Your task to perform on an android device: turn notification dots off Image 0: 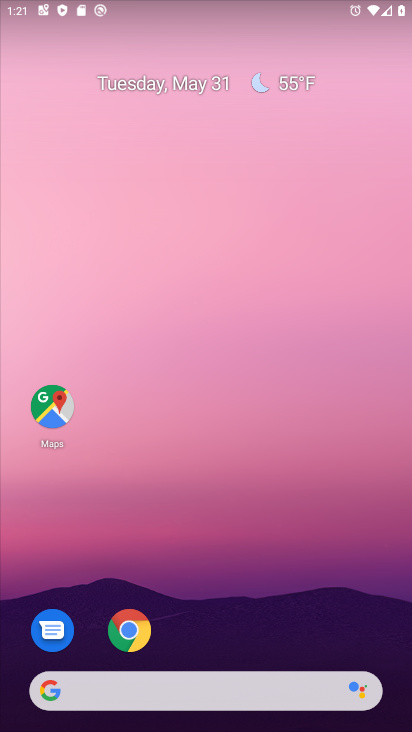
Step 0: drag from (159, 663) to (163, 312)
Your task to perform on an android device: turn notification dots off Image 1: 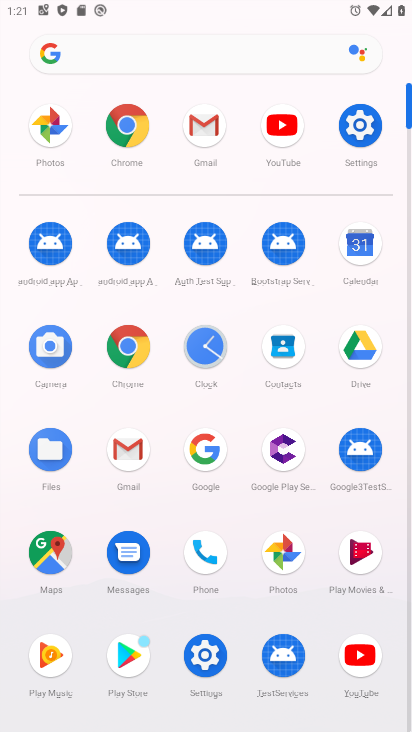
Step 1: click (361, 119)
Your task to perform on an android device: turn notification dots off Image 2: 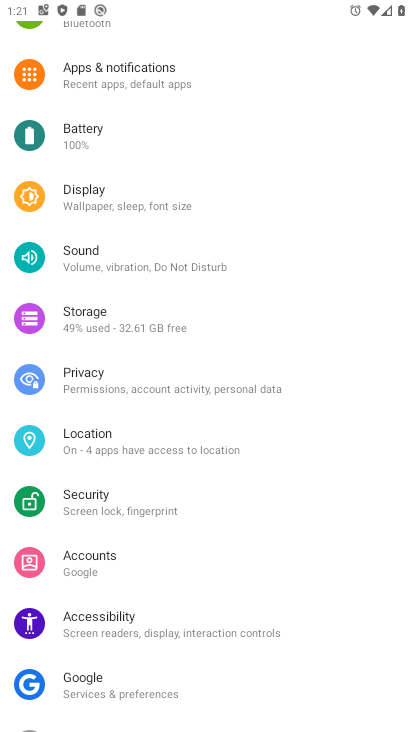
Step 2: click (128, 66)
Your task to perform on an android device: turn notification dots off Image 3: 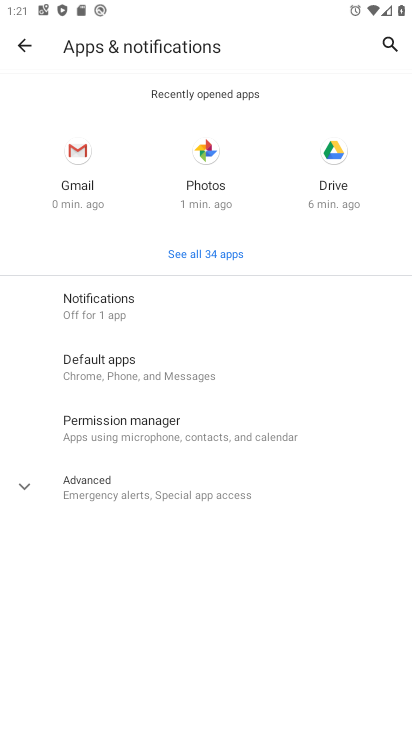
Step 3: click (101, 305)
Your task to perform on an android device: turn notification dots off Image 4: 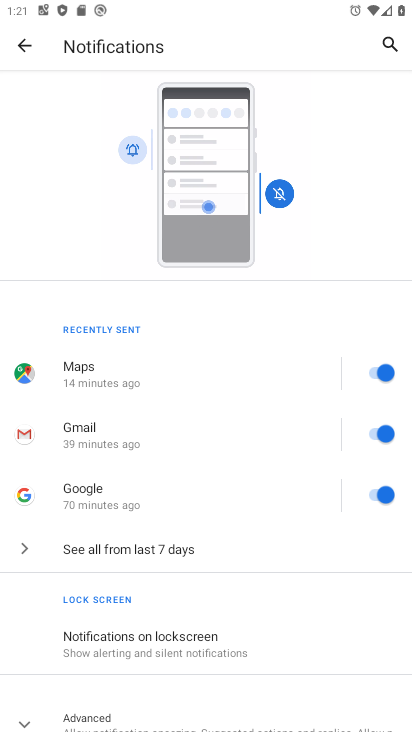
Step 4: drag from (111, 712) to (113, 419)
Your task to perform on an android device: turn notification dots off Image 5: 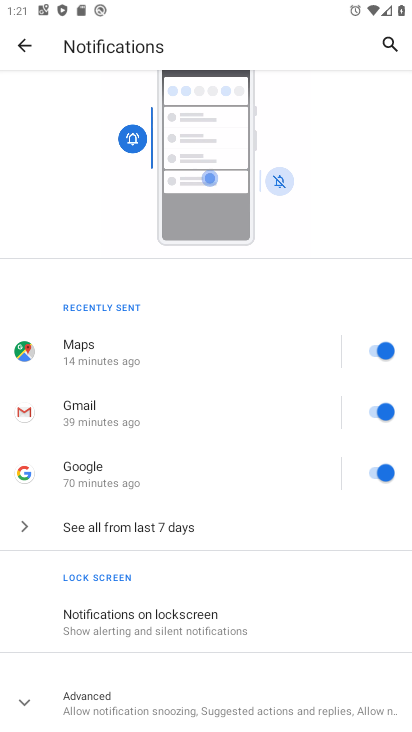
Step 5: click (92, 699)
Your task to perform on an android device: turn notification dots off Image 6: 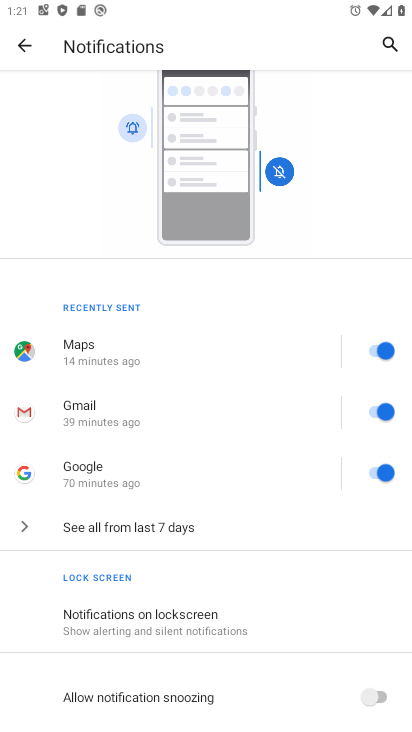
Step 6: drag from (174, 709) to (183, 420)
Your task to perform on an android device: turn notification dots off Image 7: 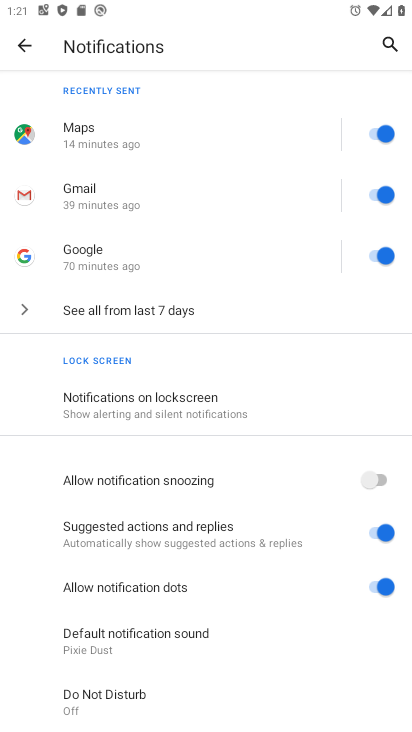
Step 7: click (368, 587)
Your task to perform on an android device: turn notification dots off Image 8: 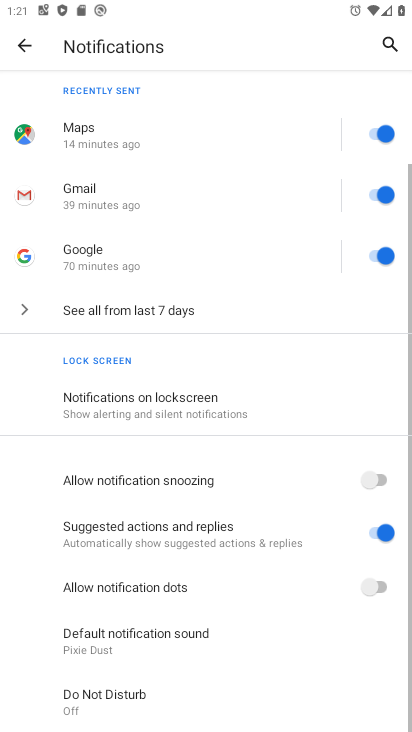
Step 8: task complete